Your task to perform on an android device: Open calendar and show me the fourth week of next month Image 0: 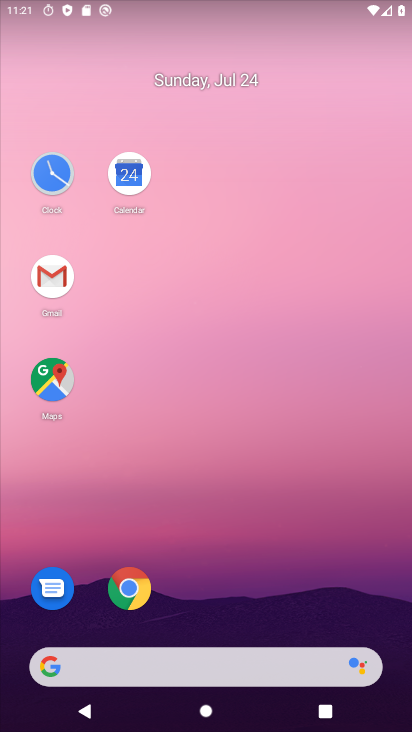
Step 0: click (145, 178)
Your task to perform on an android device: Open calendar and show me the fourth week of next month Image 1: 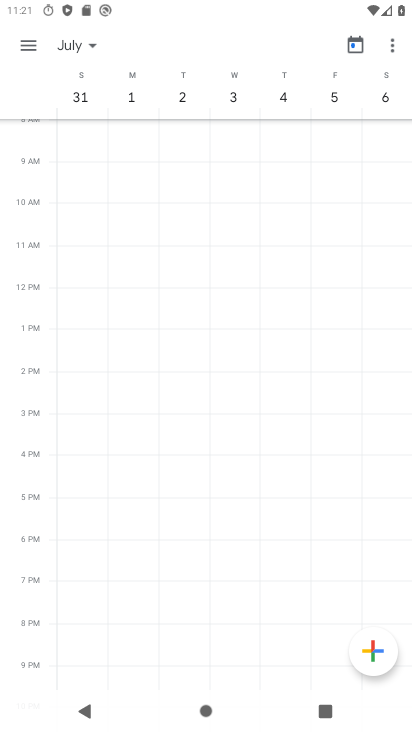
Step 1: click (40, 33)
Your task to perform on an android device: Open calendar and show me the fourth week of next month Image 2: 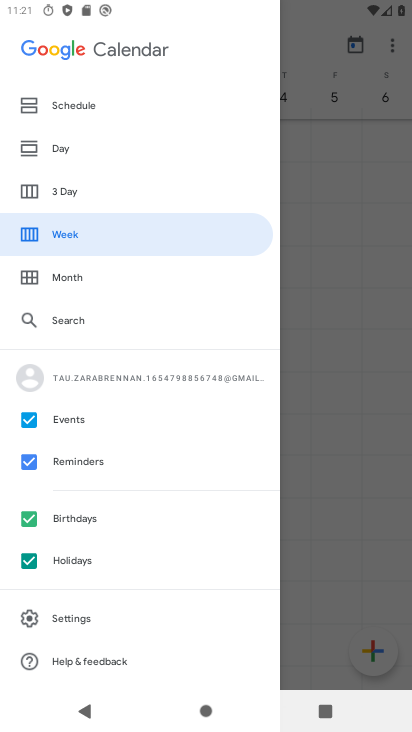
Step 2: click (126, 231)
Your task to perform on an android device: Open calendar and show me the fourth week of next month Image 3: 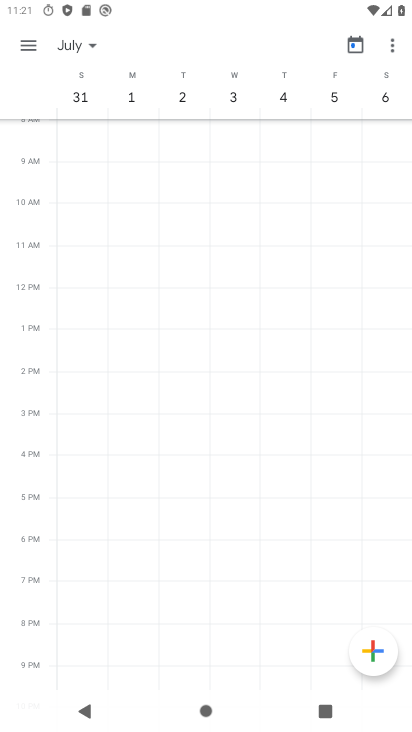
Step 3: task complete